Your task to perform on an android device: Go to display settings Image 0: 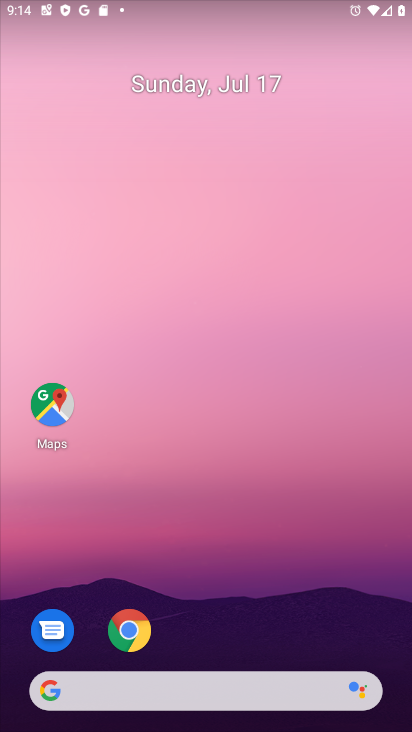
Step 0: drag from (183, 613) to (174, 273)
Your task to perform on an android device: Go to display settings Image 1: 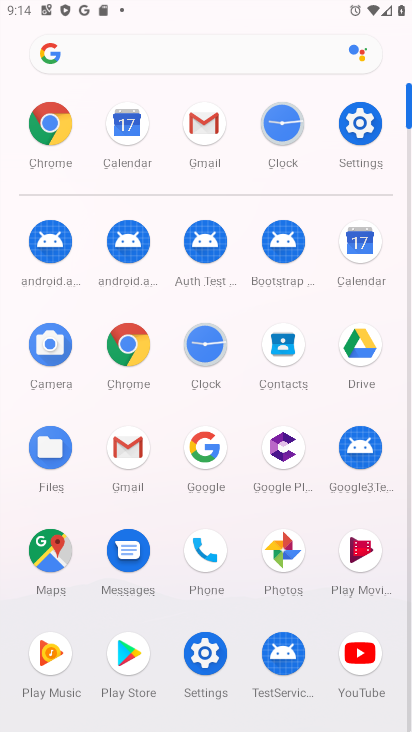
Step 1: click (358, 138)
Your task to perform on an android device: Go to display settings Image 2: 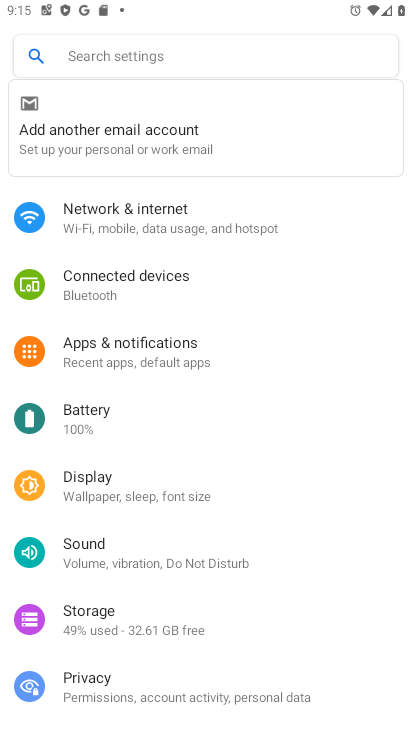
Step 2: click (98, 499)
Your task to perform on an android device: Go to display settings Image 3: 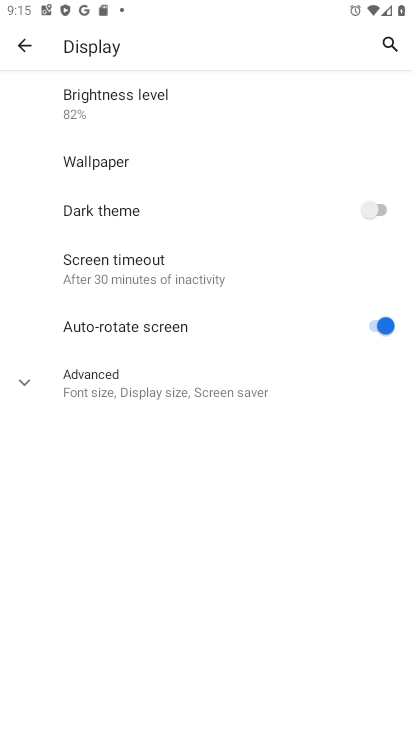
Step 3: task complete